Your task to perform on an android device: turn on notifications settings in the gmail app Image 0: 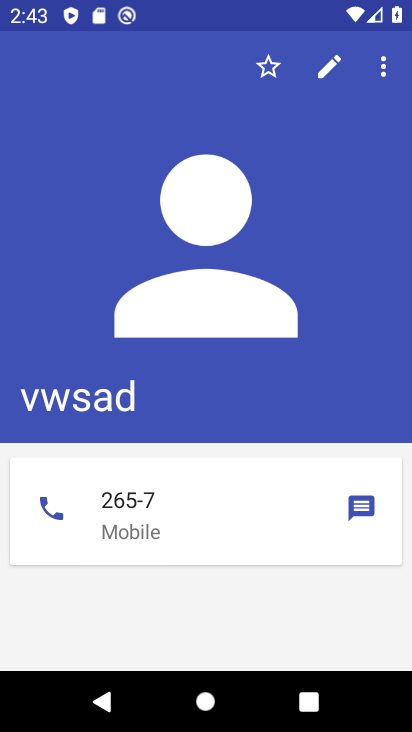
Step 0: press home button
Your task to perform on an android device: turn on notifications settings in the gmail app Image 1: 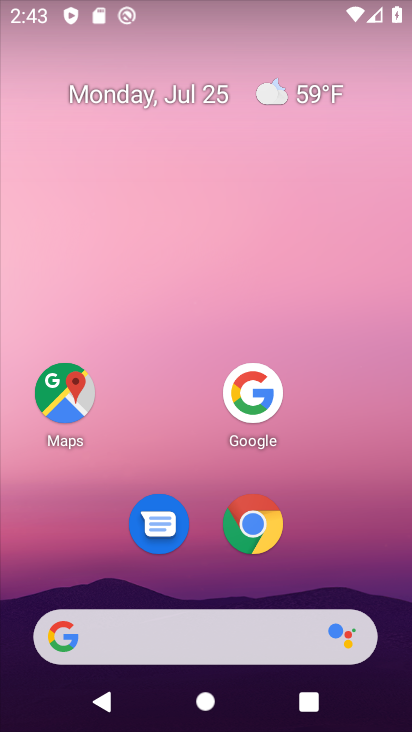
Step 1: drag from (197, 626) to (318, 103)
Your task to perform on an android device: turn on notifications settings in the gmail app Image 2: 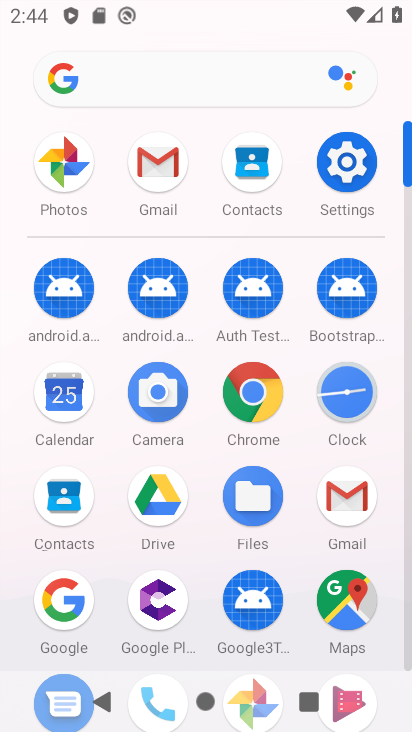
Step 2: click (148, 158)
Your task to perform on an android device: turn on notifications settings in the gmail app Image 3: 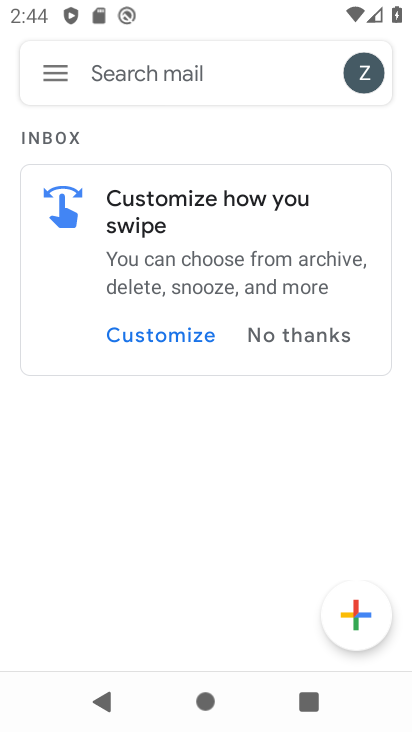
Step 3: click (60, 68)
Your task to perform on an android device: turn on notifications settings in the gmail app Image 4: 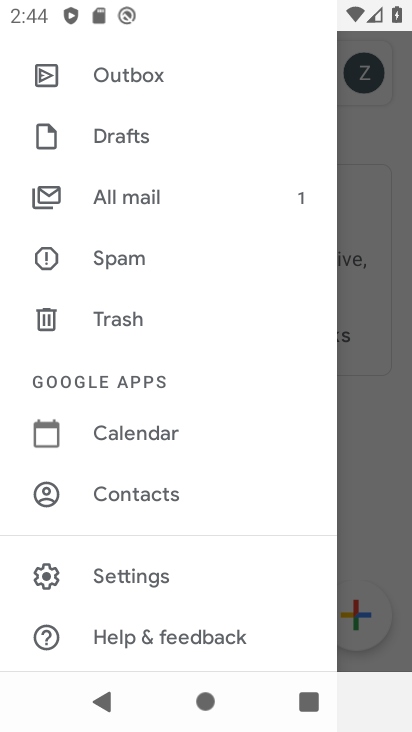
Step 4: click (123, 585)
Your task to perform on an android device: turn on notifications settings in the gmail app Image 5: 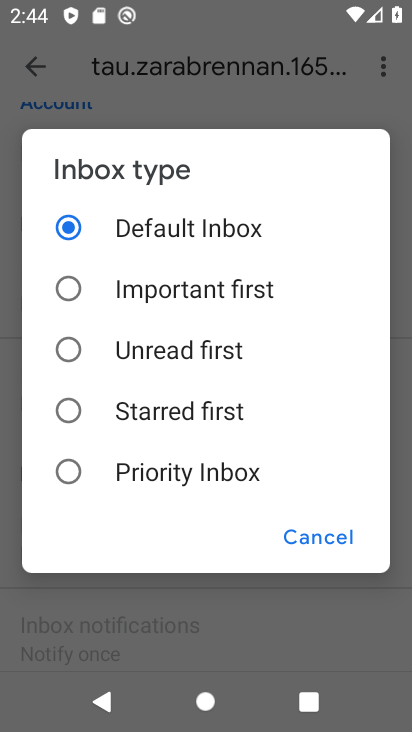
Step 5: click (304, 542)
Your task to perform on an android device: turn on notifications settings in the gmail app Image 6: 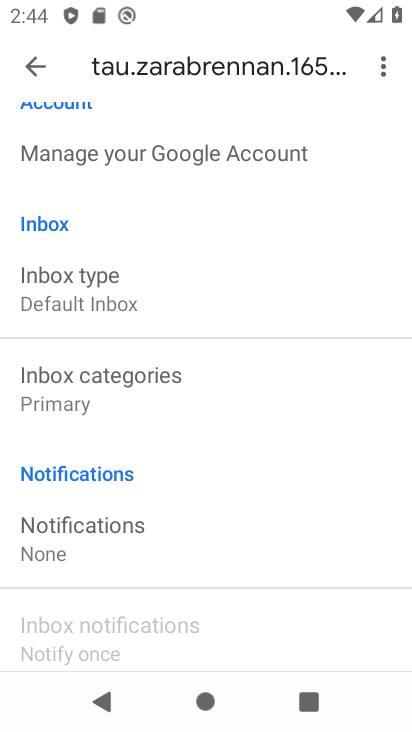
Step 6: click (71, 307)
Your task to perform on an android device: turn on notifications settings in the gmail app Image 7: 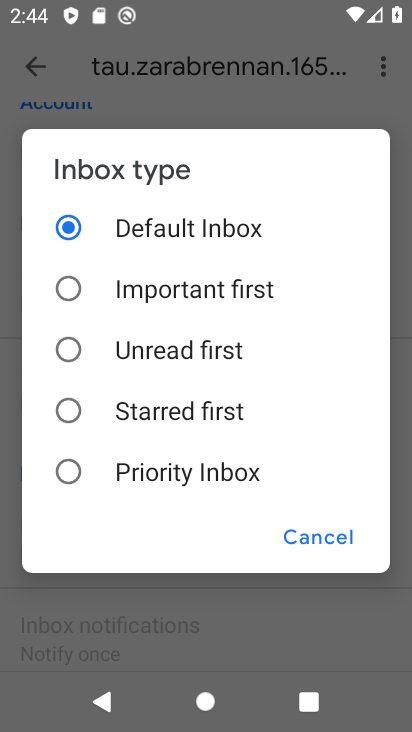
Step 7: click (331, 529)
Your task to perform on an android device: turn on notifications settings in the gmail app Image 8: 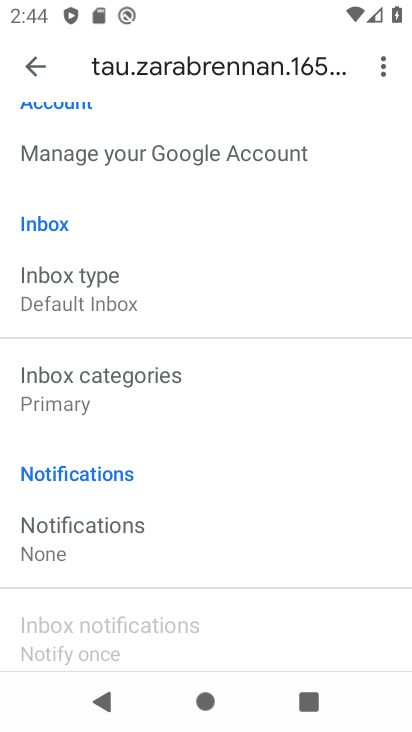
Step 8: click (86, 549)
Your task to perform on an android device: turn on notifications settings in the gmail app Image 9: 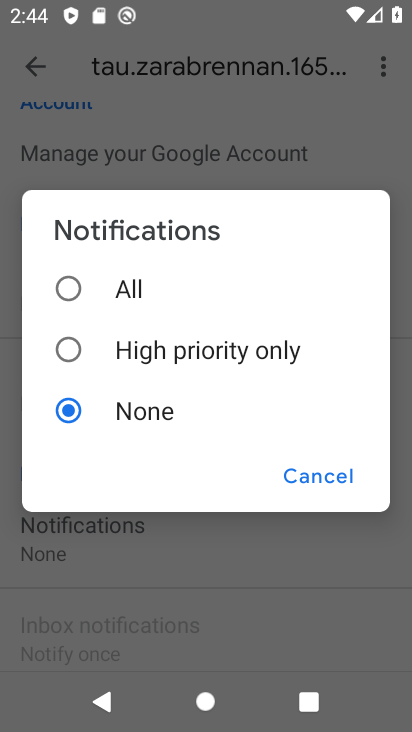
Step 9: click (66, 290)
Your task to perform on an android device: turn on notifications settings in the gmail app Image 10: 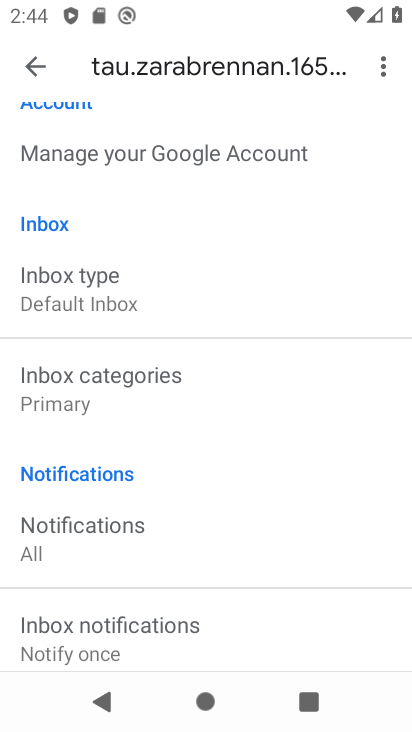
Step 10: task complete